Your task to perform on an android device: Open settings on Google Maps Image 0: 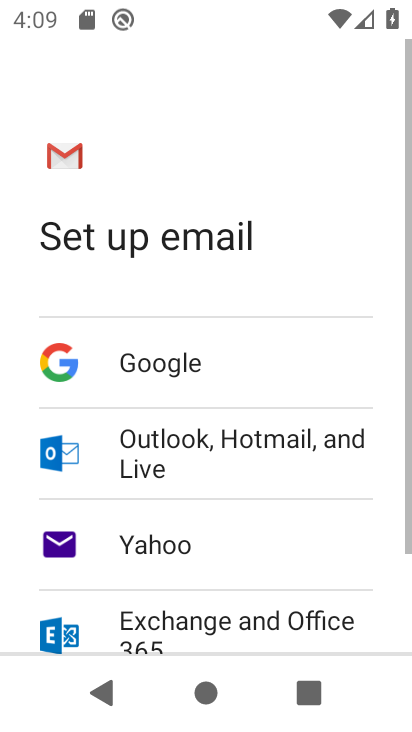
Step 0: press home button
Your task to perform on an android device: Open settings on Google Maps Image 1: 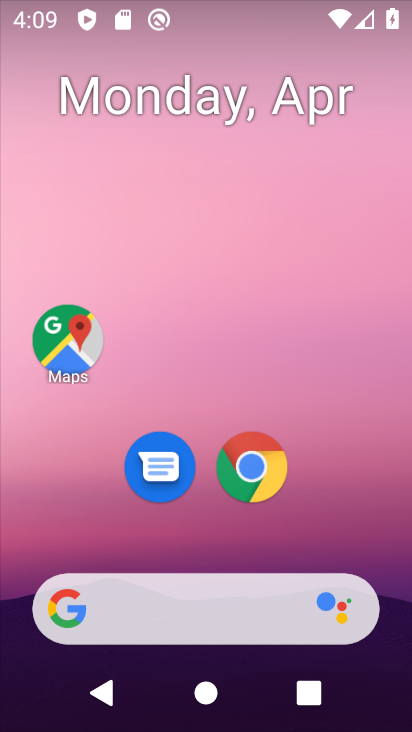
Step 1: click (77, 349)
Your task to perform on an android device: Open settings on Google Maps Image 2: 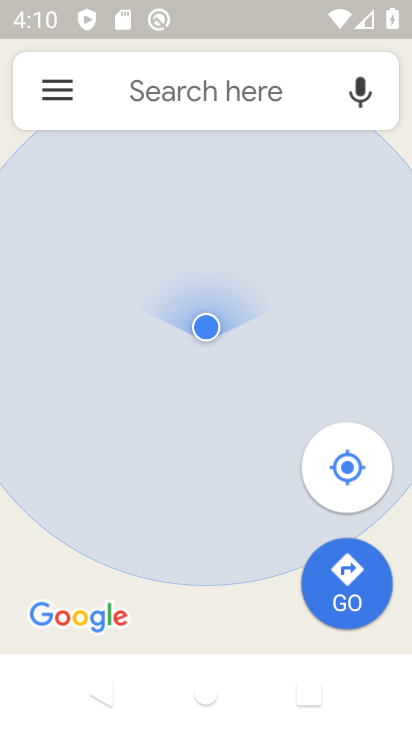
Step 2: click (58, 99)
Your task to perform on an android device: Open settings on Google Maps Image 3: 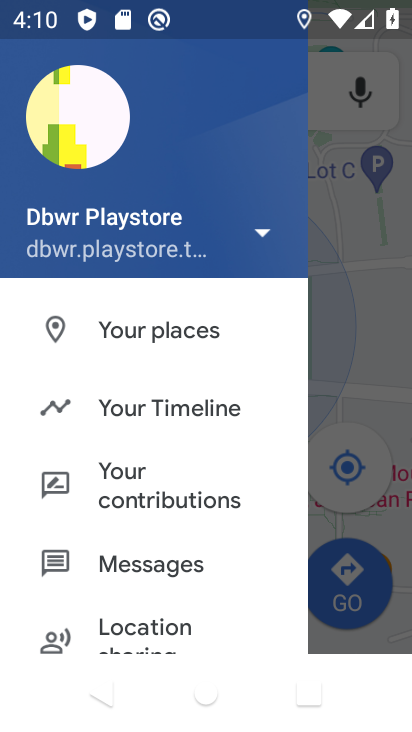
Step 3: drag from (160, 598) to (176, 163)
Your task to perform on an android device: Open settings on Google Maps Image 4: 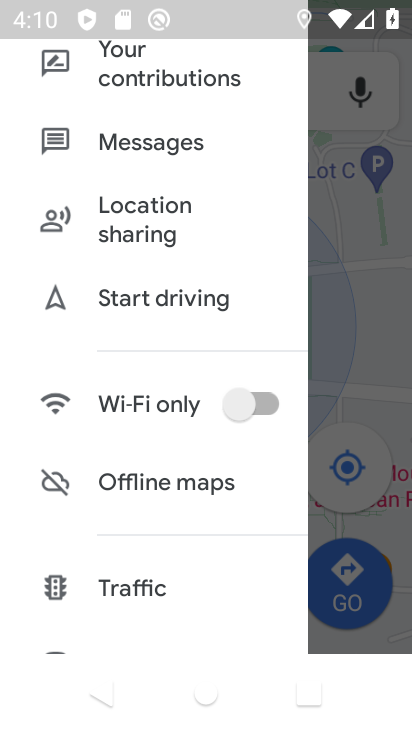
Step 4: drag from (138, 460) to (152, 251)
Your task to perform on an android device: Open settings on Google Maps Image 5: 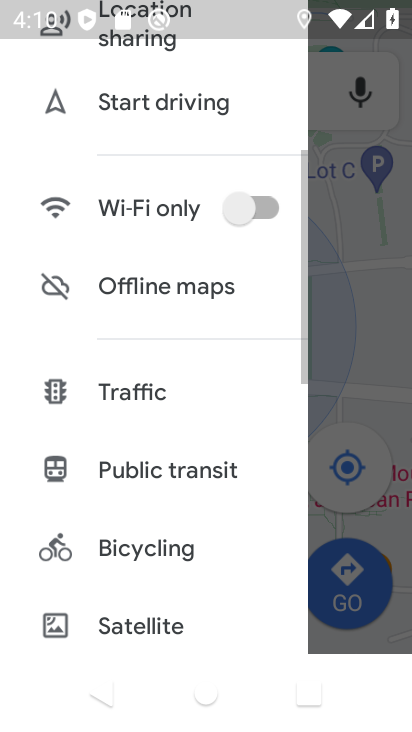
Step 5: drag from (132, 453) to (145, 264)
Your task to perform on an android device: Open settings on Google Maps Image 6: 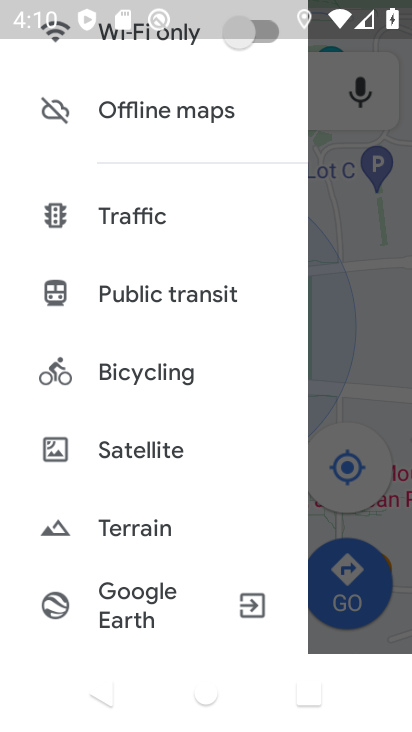
Step 6: drag from (158, 533) to (170, 304)
Your task to perform on an android device: Open settings on Google Maps Image 7: 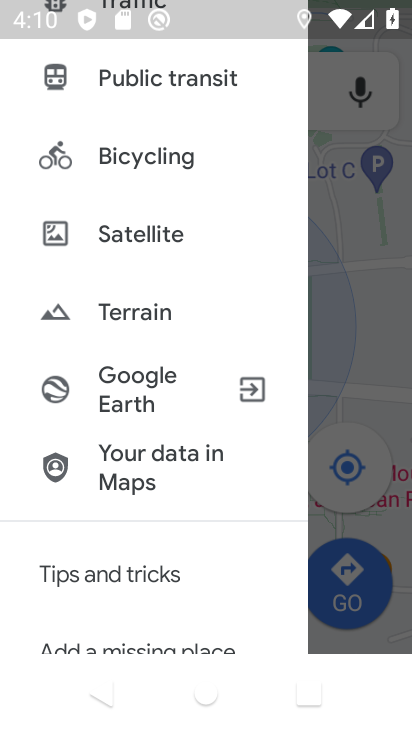
Step 7: drag from (158, 512) to (165, 275)
Your task to perform on an android device: Open settings on Google Maps Image 8: 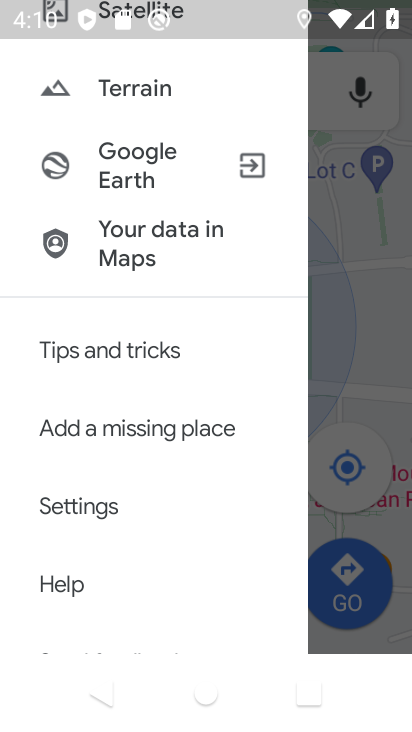
Step 8: click (123, 513)
Your task to perform on an android device: Open settings on Google Maps Image 9: 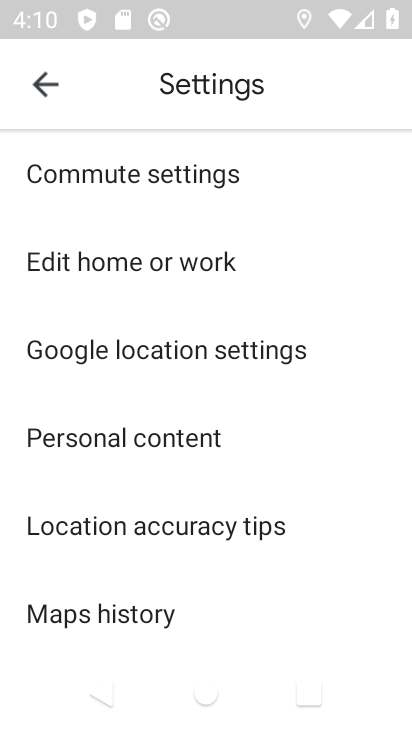
Step 9: task complete